Your task to perform on an android device: What's on my calendar today? Image 0: 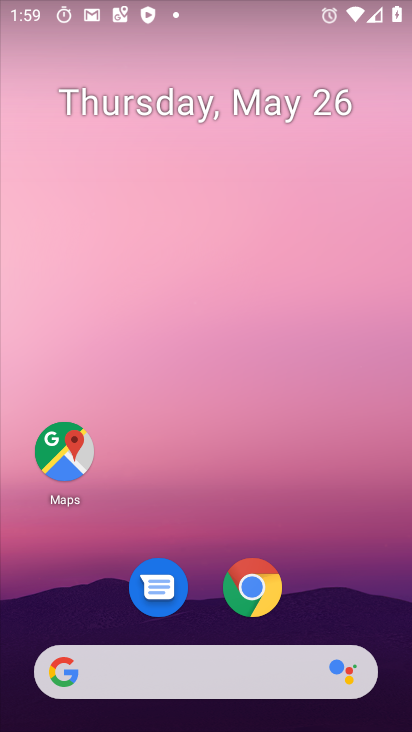
Step 0: drag from (163, 691) to (195, 138)
Your task to perform on an android device: What's on my calendar today? Image 1: 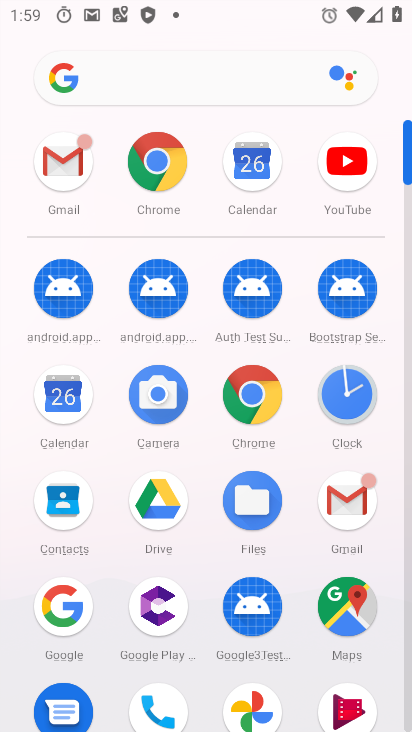
Step 1: click (66, 409)
Your task to perform on an android device: What's on my calendar today? Image 2: 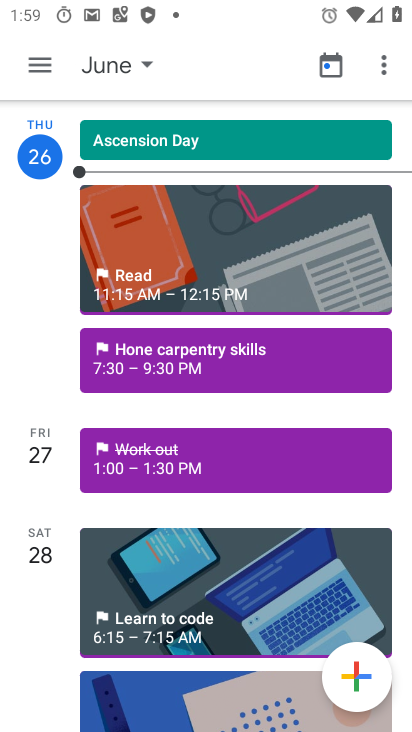
Step 2: click (60, 60)
Your task to perform on an android device: What's on my calendar today? Image 3: 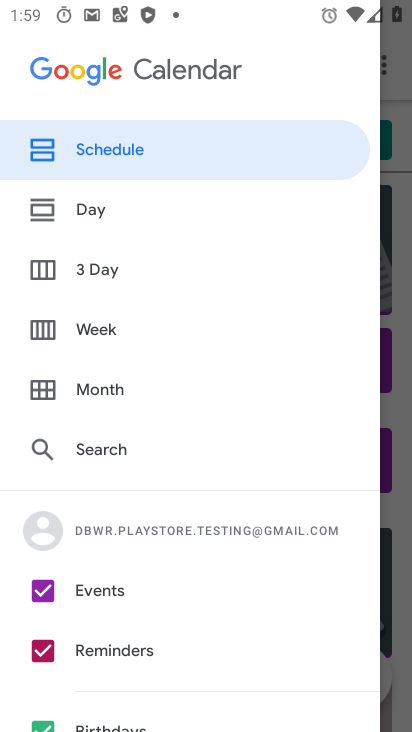
Step 3: click (169, 159)
Your task to perform on an android device: What's on my calendar today? Image 4: 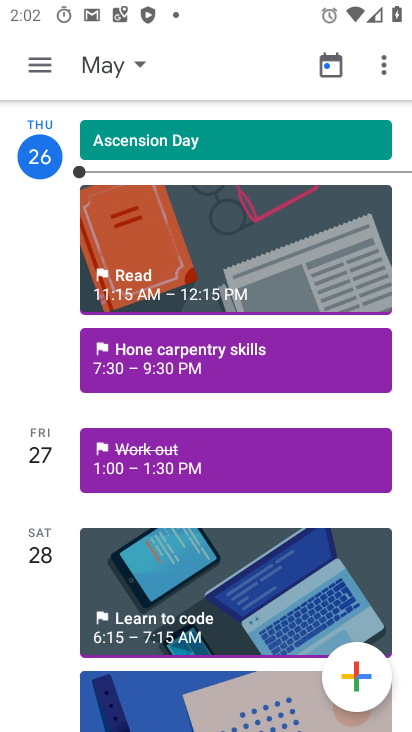
Step 4: task complete